Your task to perform on an android device: change alarm snooze length Image 0: 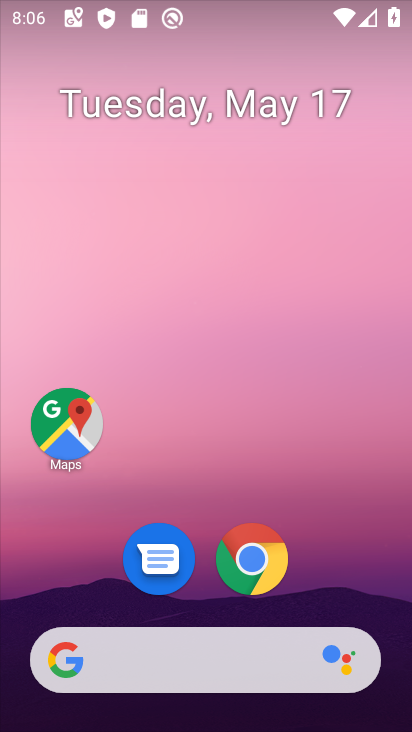
Step 0: drag from (118, 669) to (189, 85)
Your task to perform on an android device: change alarm snooze length Image 1: 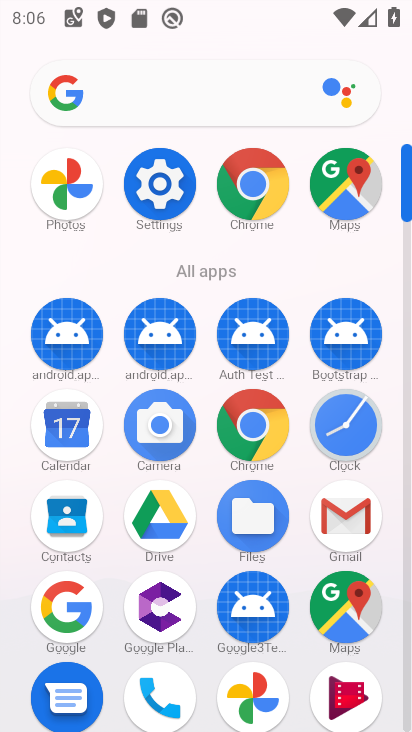
Step 1: click (342, 423)
Your task to perform on an android device: change alarm snooze length Image 2: 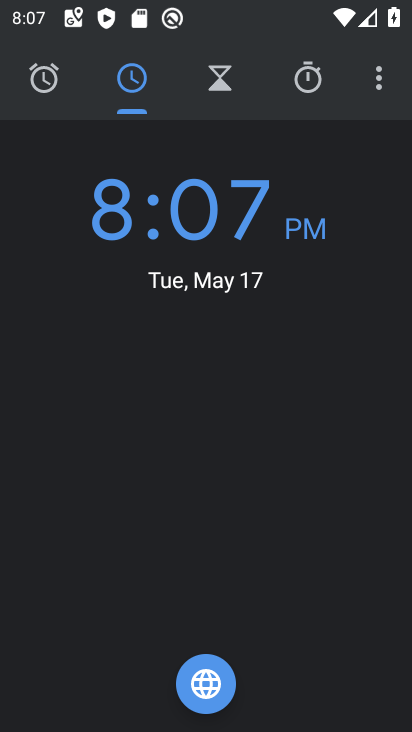
Step 2: click (381, 76)
Your task to perform on an android device: change alarm snooze length Image 3: 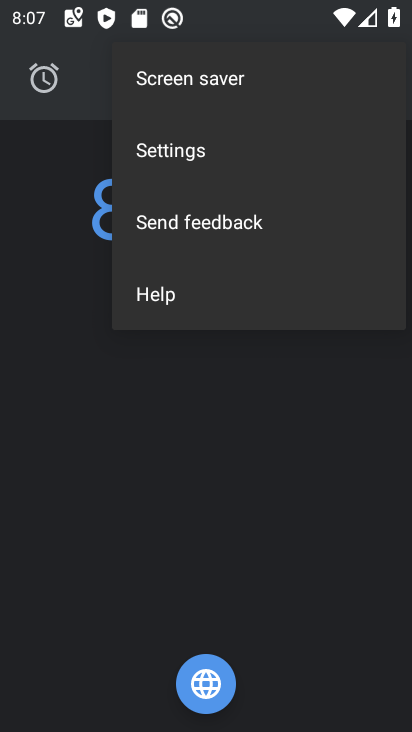
Step 3: click (237, 148)
Your task to perform on an android device: change alarm snooze length Image 4: 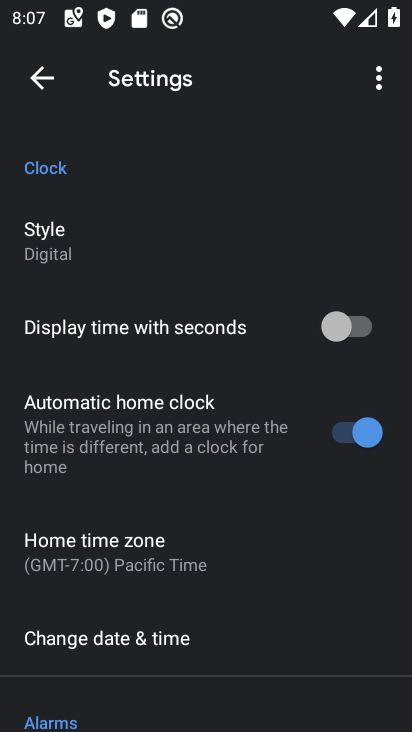
Step 4: drag from (307, 625) to (242, 15)
Your task to perform on an android device: change alarm snooze length Image 5: 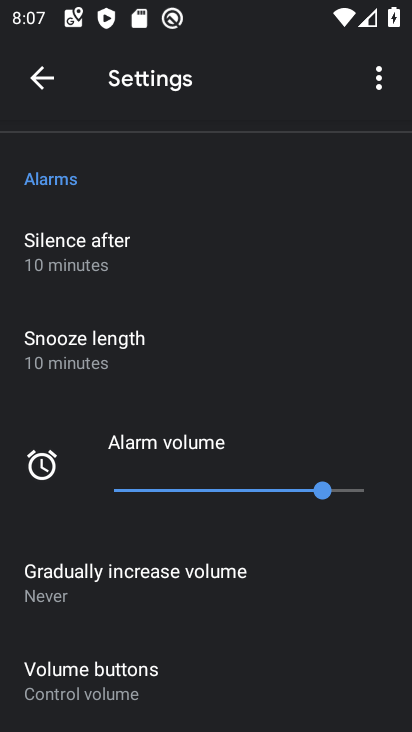
Step 5: click (152, 353)
Your task to perform on an android device: change alarm snooze length Image 6: 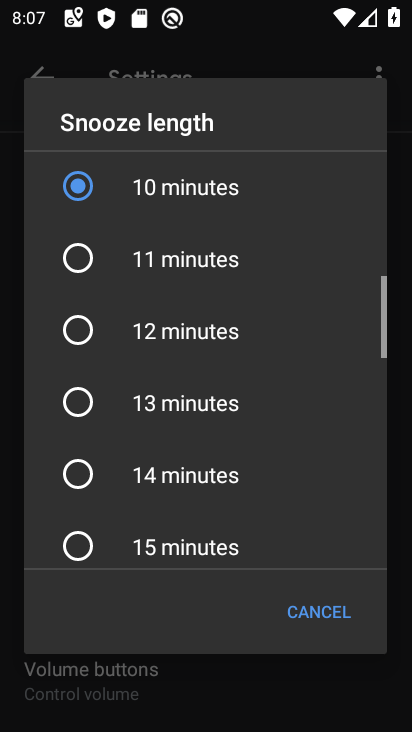
Step 6: click (192, 341)
Your task to perform on an android device: change alarm snooze length Image 7: 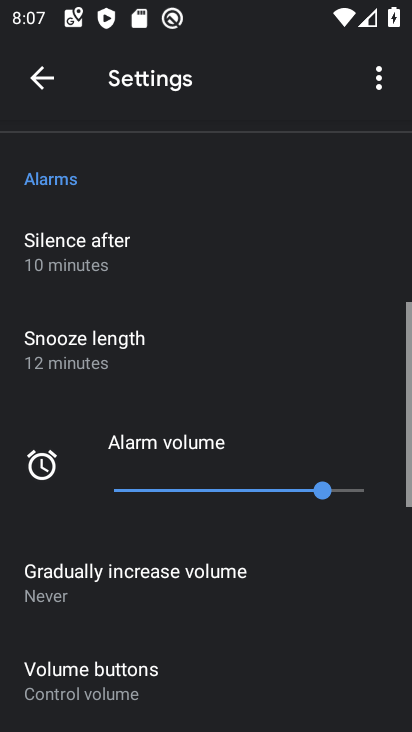
Step 7: task complete